Your task to perform on an android device: Is it going to rain today? Image 0: 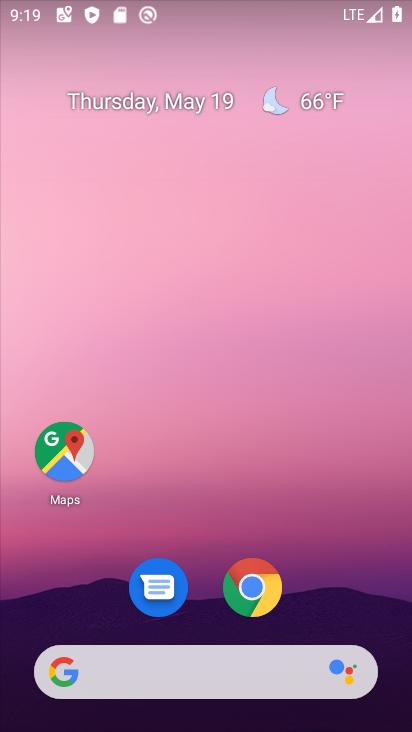
Step 0: drag from (302, 498) to (274, 192)
Your task to perform on an android device: Is it going to rain today? Image 1: 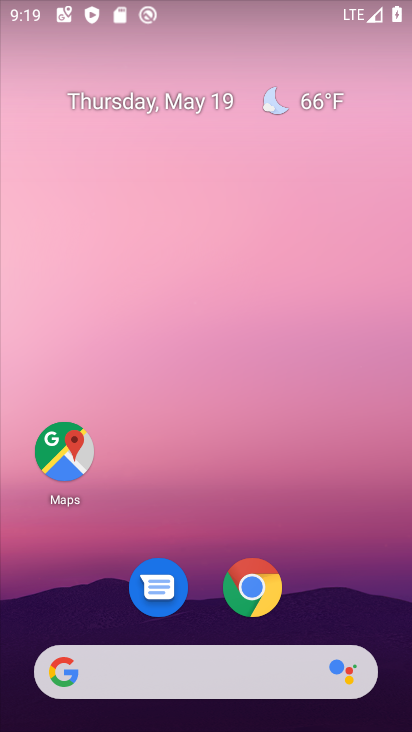
Step 1: drag from (222, 723) to (207, 69)
Your task to perform on an android device: Is it going to rain today? Image 2: 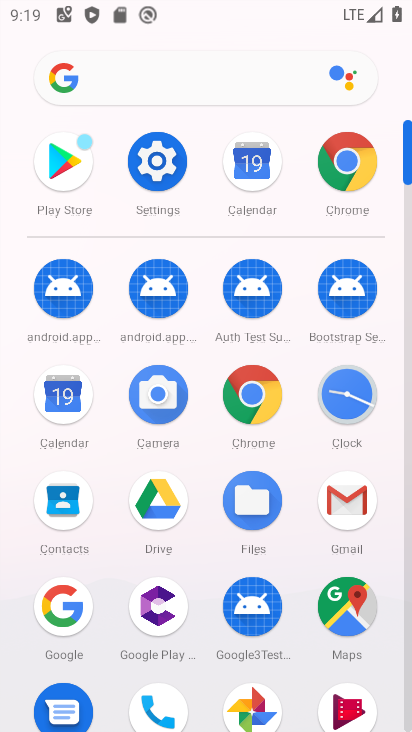
Step 2: click (188, 94)
Your task to perform on an android device: Is it going to rain today? Image 3: 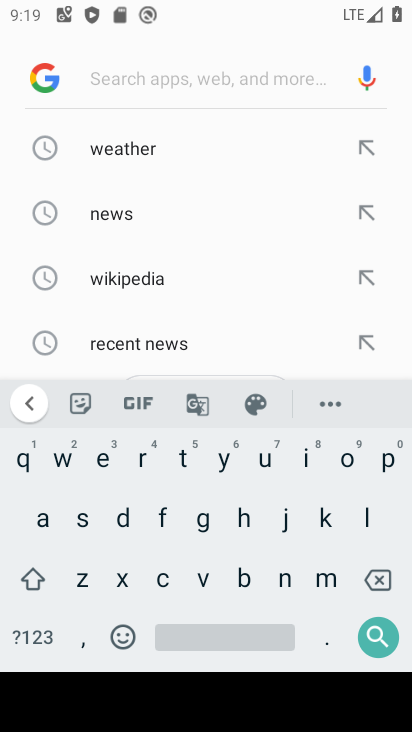
Step 3: click (133, 461)
Your task to perform on an android device: Is it going to rain today? Image 4: 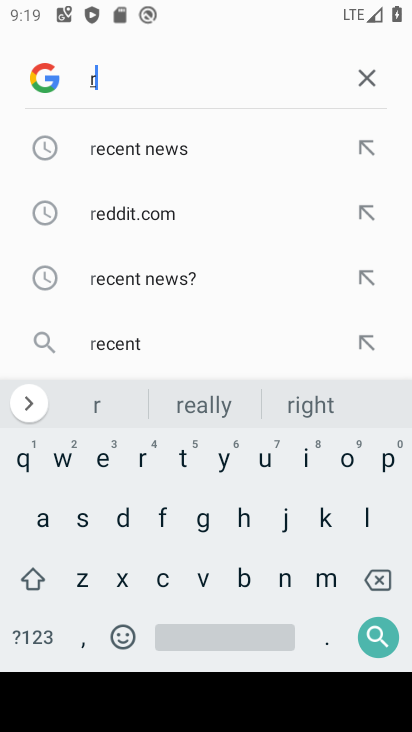
Step 4: click (36, 517)
Your task to perform on an android device: Is it going to rain today? Image 5: 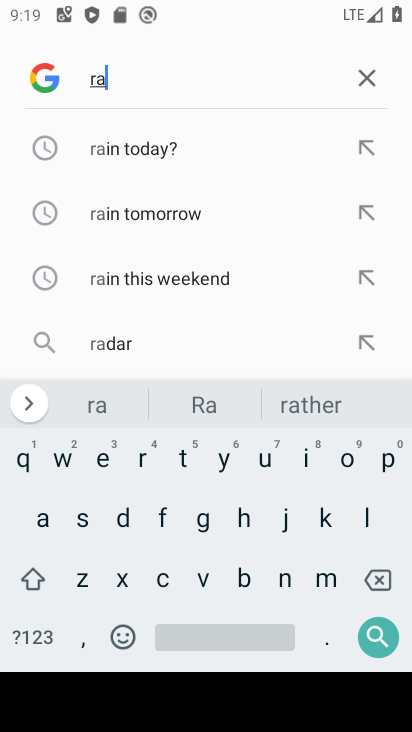
Step 5: click (124, 153)
Your task to perform on an android device: Is it going to rain today? Image 6: 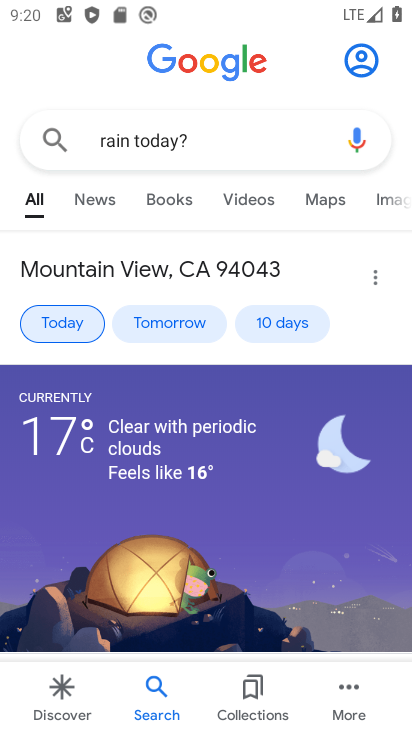
Step 6: task complete